Your task to perform on an android device: delete the emails in spam in the gmail app Image 0: 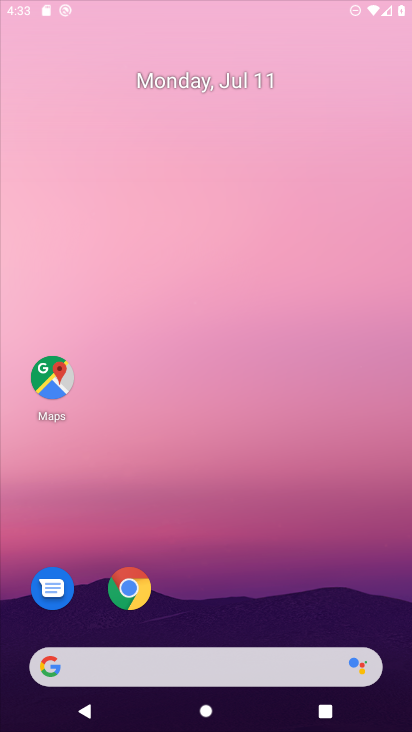
Step 0: press home button
Your task to perform on an android device: delete the emails in spam in the gmail app Image 1: 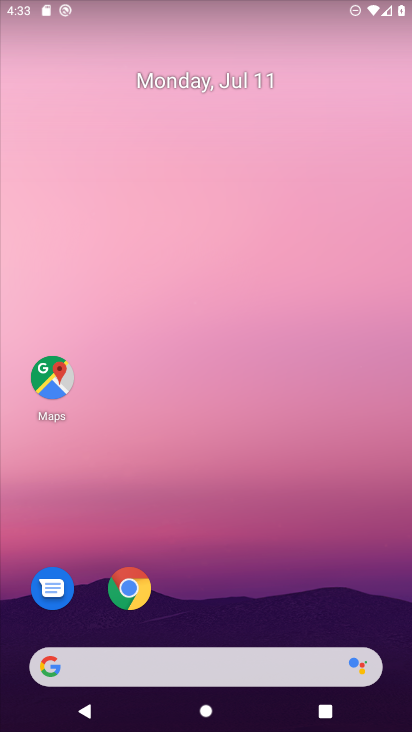
Step 1: drag from (233, 635) to (255, 188)
Your task to perform on an android device: delete the emails in spam in the gmail app Image 2: 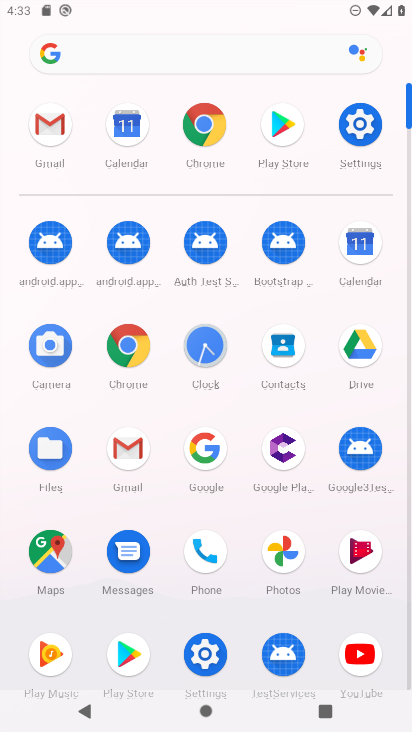
Step 2: click (45, 124)
Your task to perform on an android device: delete the emails in spam in the gmail app Image 3: 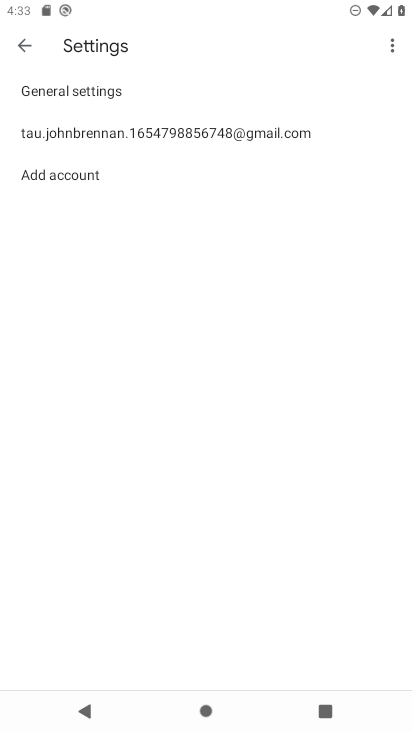
Step 3: click (25, 46)
Your task to perform on an android device: delete the emails in spam in the gmail app Image 4: 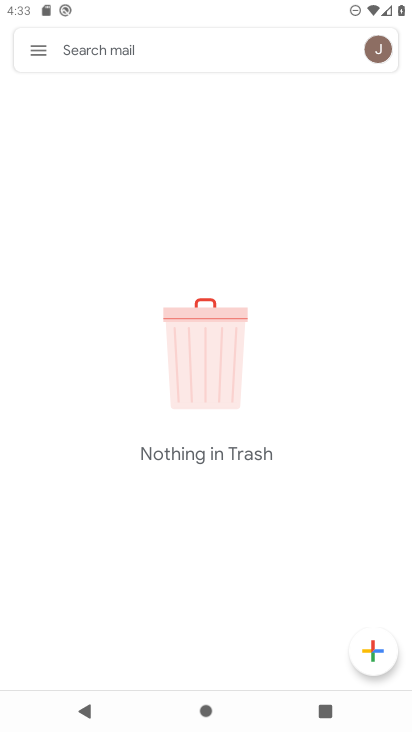
Step 4: click (34, 55)
Your task to perform on an android device: delete the emails in spam in the gmail app Image 5: 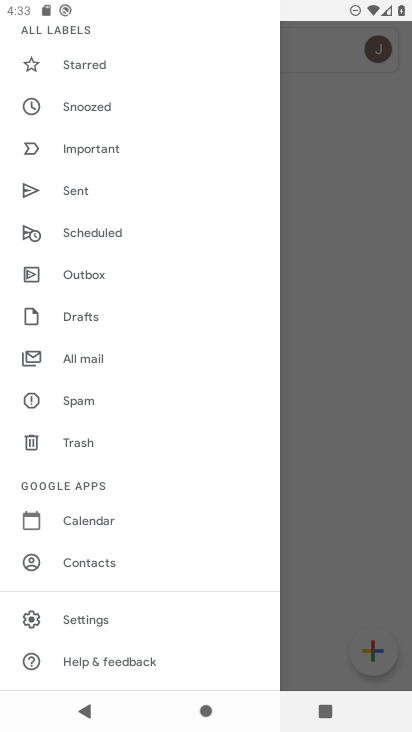
Step 5: click (82, 399)
Your task to perform on an android device: delete the emails in spam in the gmail app Image 6: 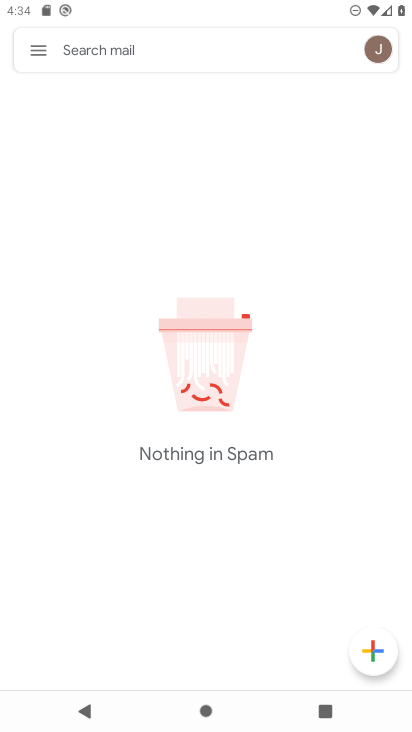
Step 6: task complete